Your task to perform on an android device: set default search engine in the chrome app Image 0: 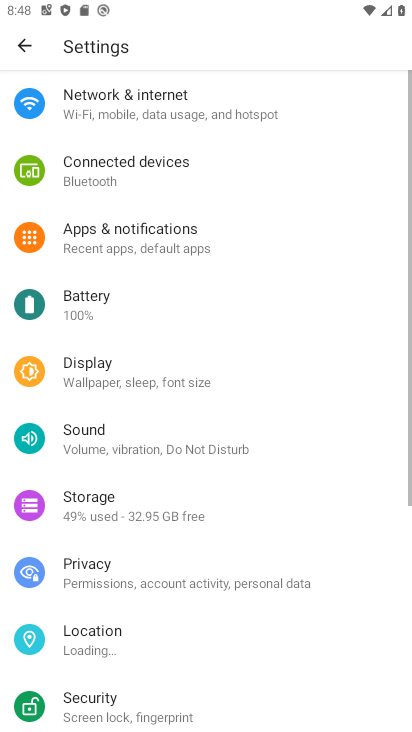
Step 0: press home button
Your task to perform on an android device: set default search engine in the chrome app Image 1: 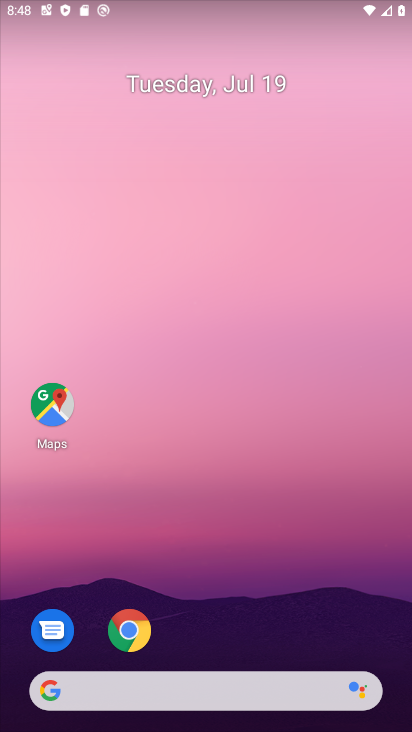
Step 1: click (139, 631)
Your task to perform on an android device: set default search engine in the chrome app Image 2: 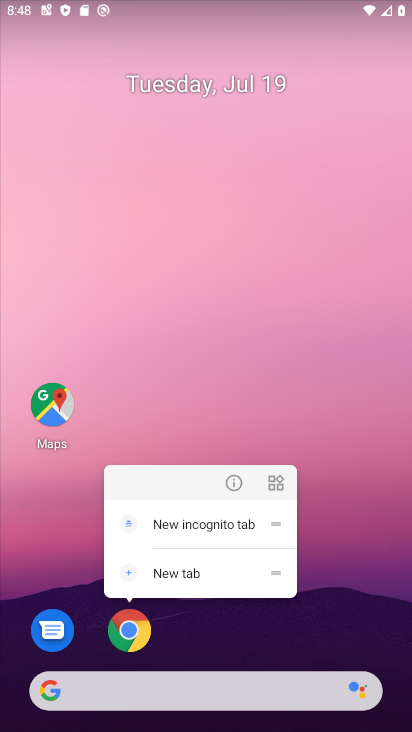
Step 2: click (139, 631)
Your task to perform on an android device: set default search engine in the chrome app Image 3: 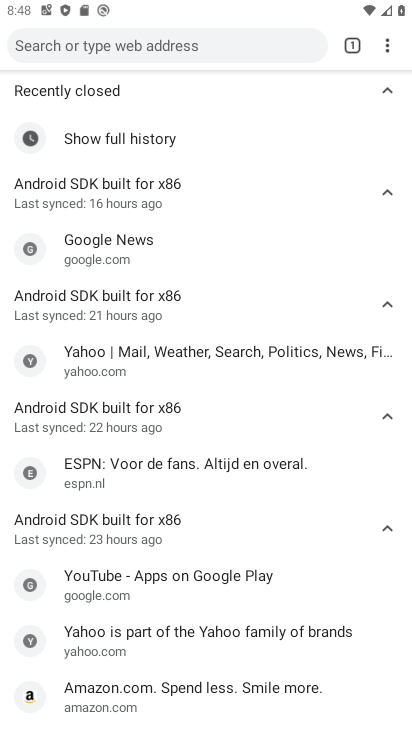
Step 3: click (382, 48)
Your task to perform on an android device: set default search engine in the chrome app Image 4: 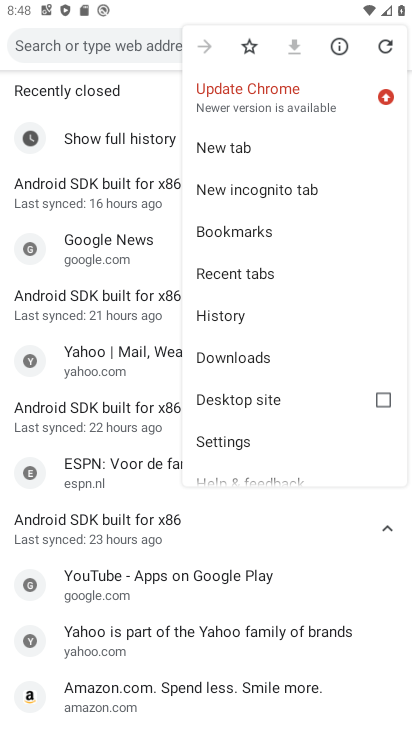
Step 4: click (244, 446)
Your task to perform on an android device: set default search engine in the chrome app Image 5: 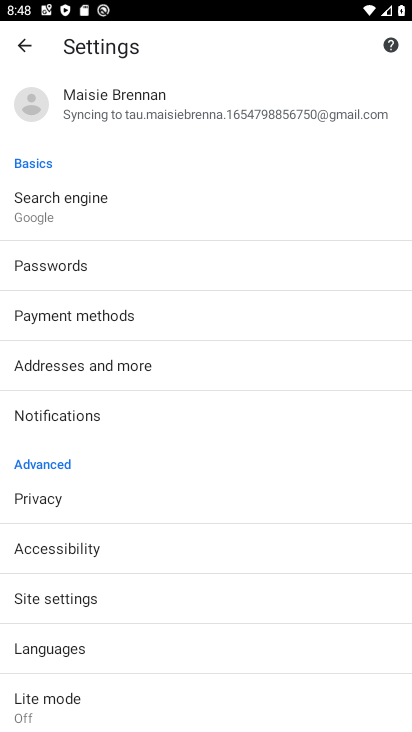
Step 5: click (84, 211)
Your task to perform on an android device: set default search engine in the chrome app Image 6: 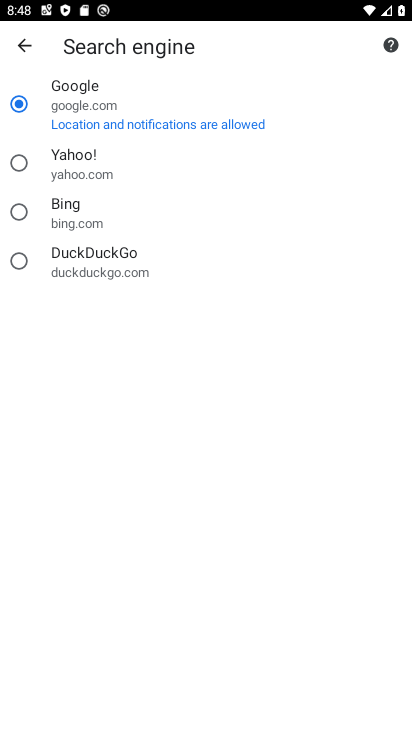
Step 6: task complete